Your task to perform on an android device: open the mobile data screen to see how much data has been used Image 0: 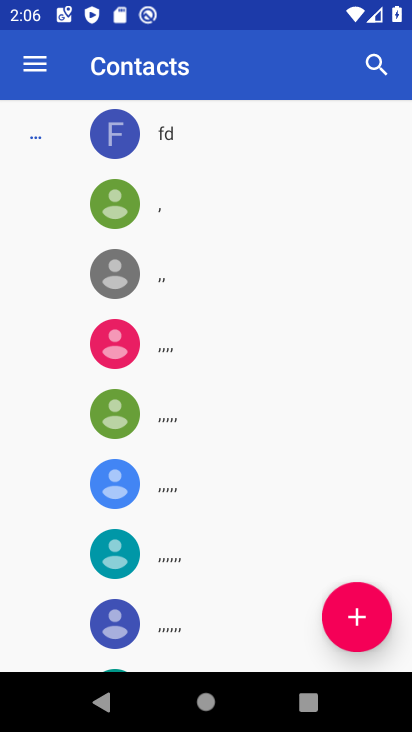
Step 0: press home button
Your task to perform on an android device: open the mobile data screen to see how much data has been used Image 1: 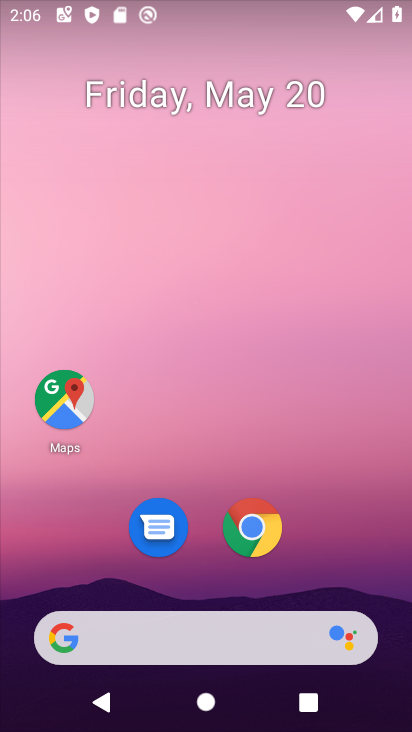
Step 1: drag from (253, 705) to (336, 117)
Your task to perform on an android device: open the mobile data screen to see how much data has been used Image 2: 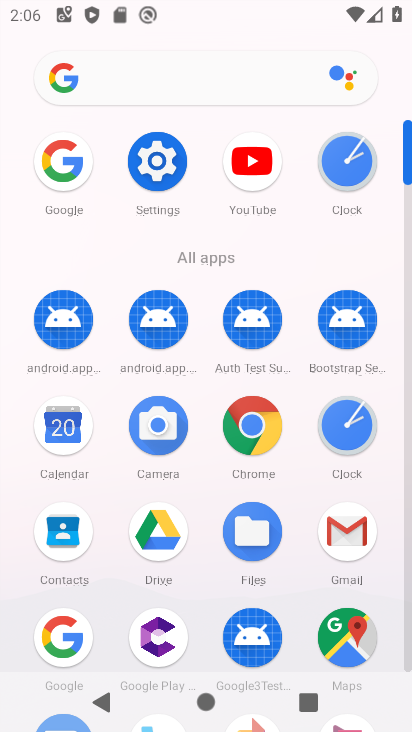
Step 2: click (159, 166)
Your task to perform on an android device: open the mobile data screen to see how much data has been used Image 3: 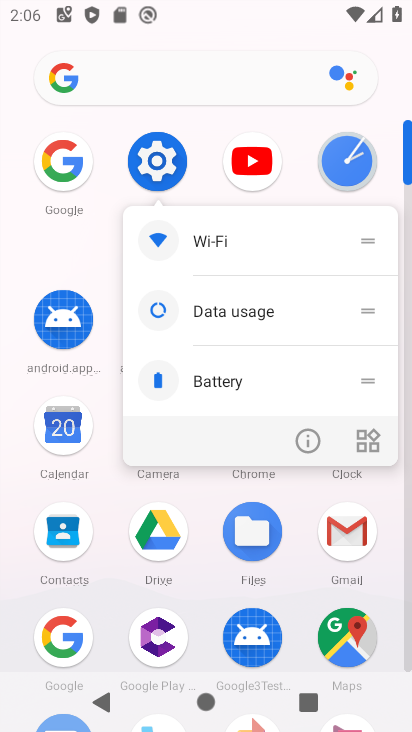
Step 3: click (172, 151)
Your task to perform on an android device: open the mobile data screen to see how much data has been used Image 4: 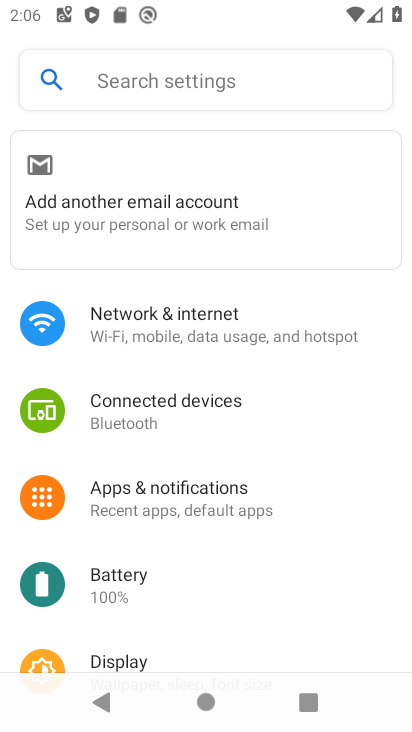
Step 4: click (219, 343)
Your task to perform on an android device: open the mobile data screen to see how much data has been used Image 5: 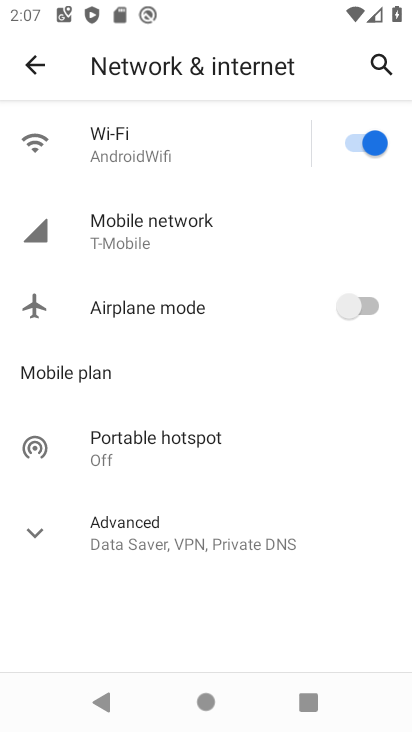
Step 5: click (168, 229)
Your task to perform on an android device: open the mobile data screen to see how much data has been used Image 6: 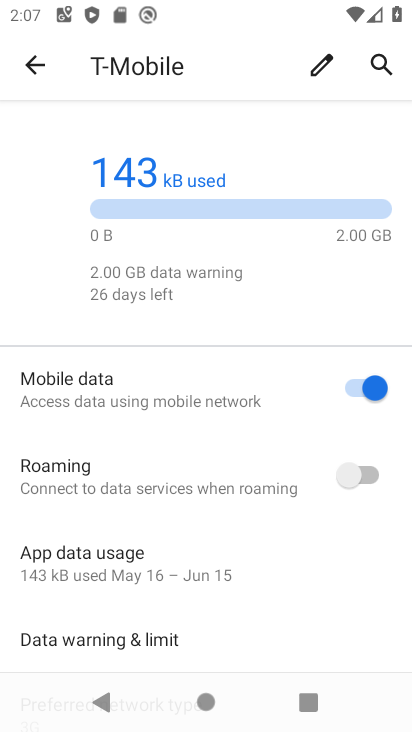
Step 6: task complete